Your task to perform on an android device: Go to sound settings Image 0: 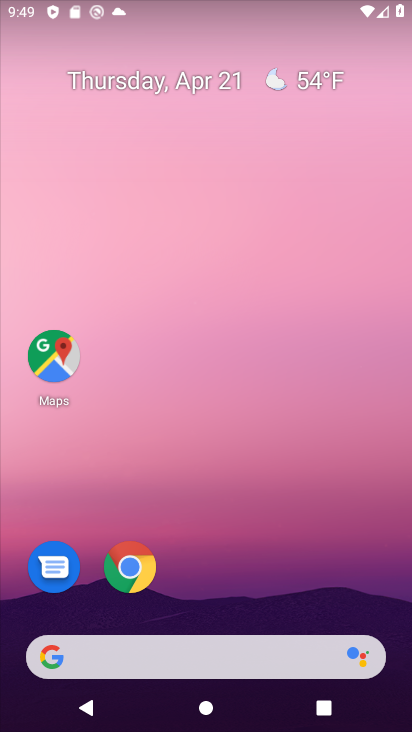
Step 0: drag from (219, 561) to (295, 149)
Your task to perform on an android device: Go to sound settings Image 1: 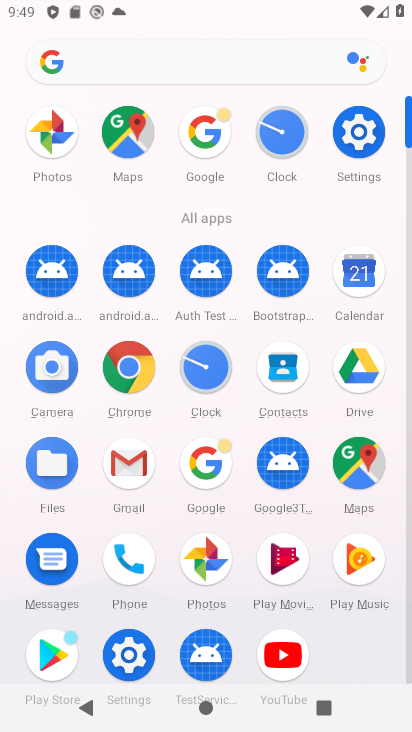
Step 1: click (135, 652)
Your task to perform on an android device: Go to sound settings Image 2: 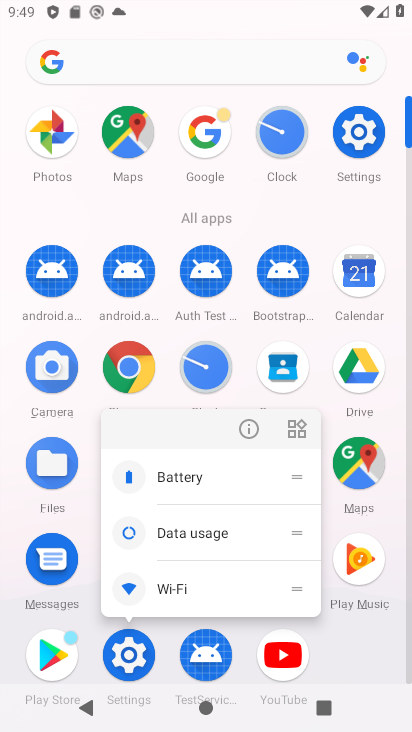
Step 2: click (143, 656)
Your task to perform on an android device: Go to sound settings Image 3: 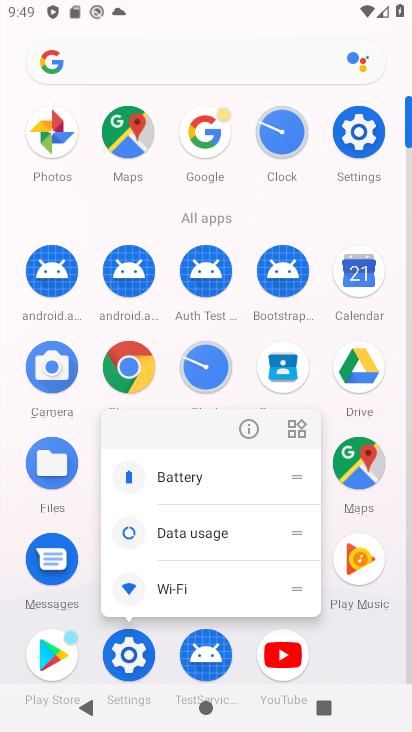
Step 3: click (135, 656)
Your task to perform on an android device: Go to sound settings Image 4: 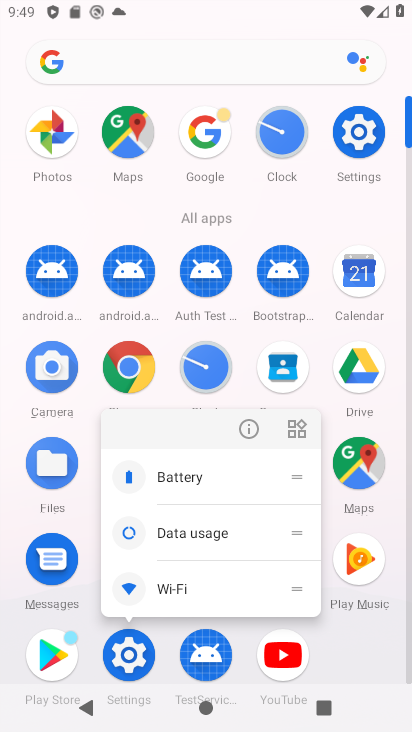
Step 4: click (124, 651)
Your task to perform on an android device: Go to sound settings Image 5: 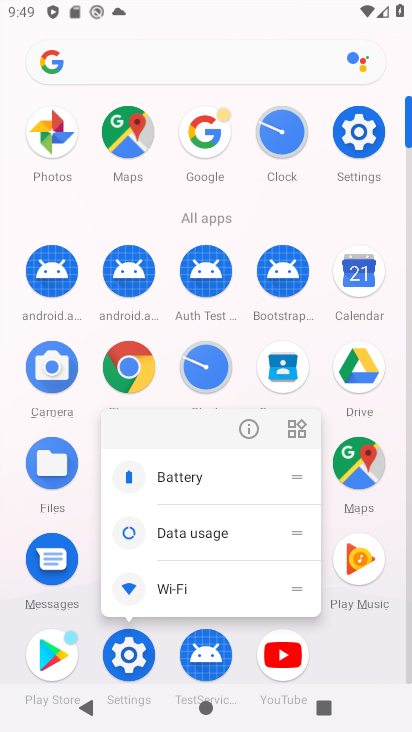
Step 5: click (134, 656)
Your task to perform on an android device: Go to sound settings Image 6: 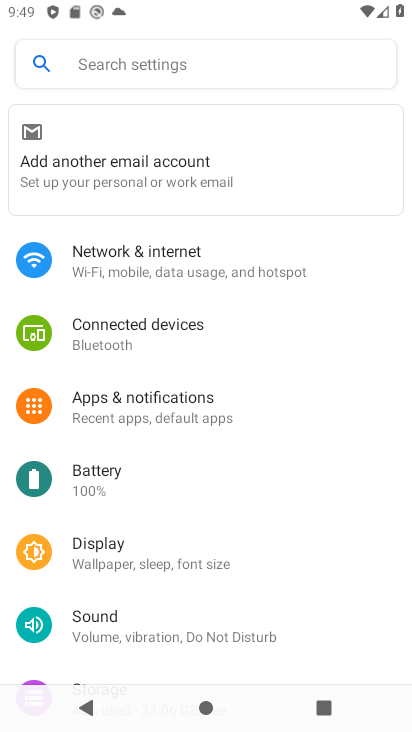
Step 6: click (131, 623)
Your task to perform on an android device: Go to sound settings Image 7: 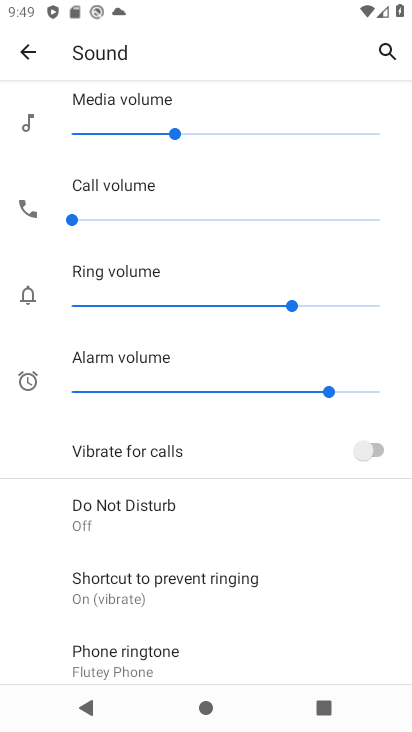
Step 7: task complete